Your task to perform on an android device: Open Google Image 0: 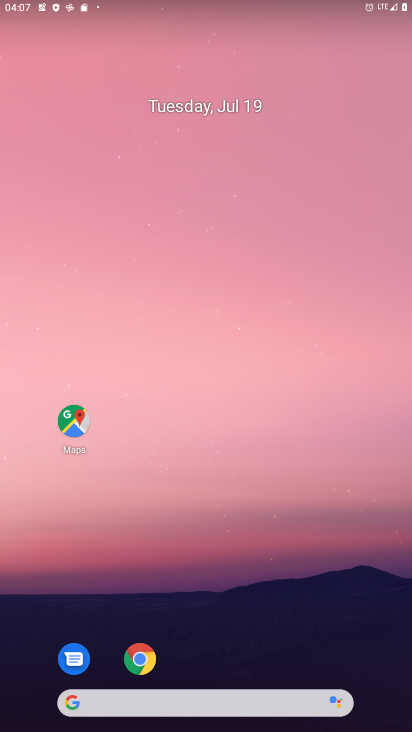
Step 0: drag from (155, 672) to (249, 104)
Your task to perform on an android device: Open Google Image 1: 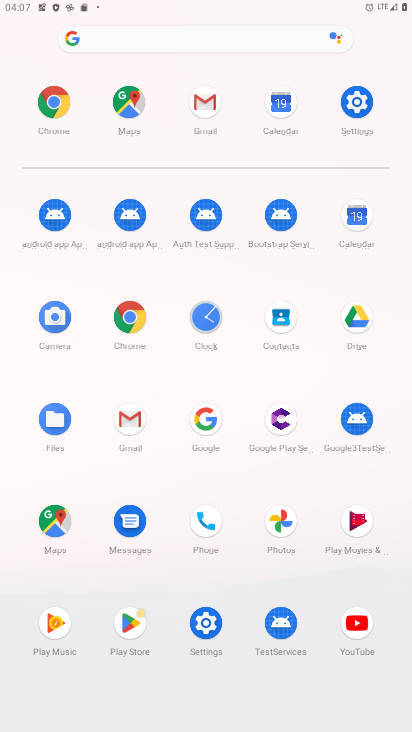
Step 1: click (196, 419)
Your task to perform on an android device: Open Google Image 2: 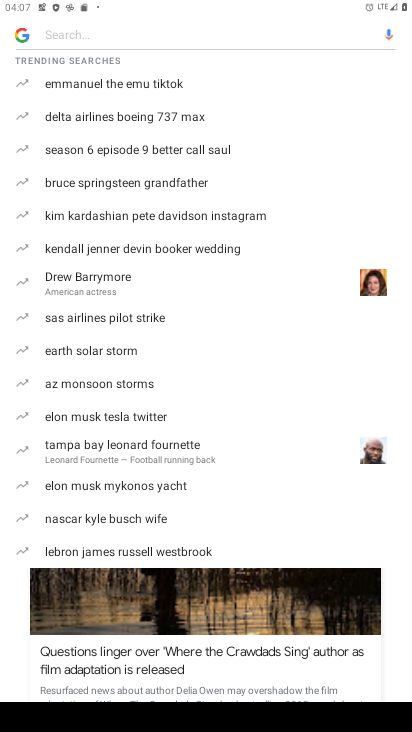
Step 2: task complete